Your task to perform on an android device: Go to Wikipedia Image 0: 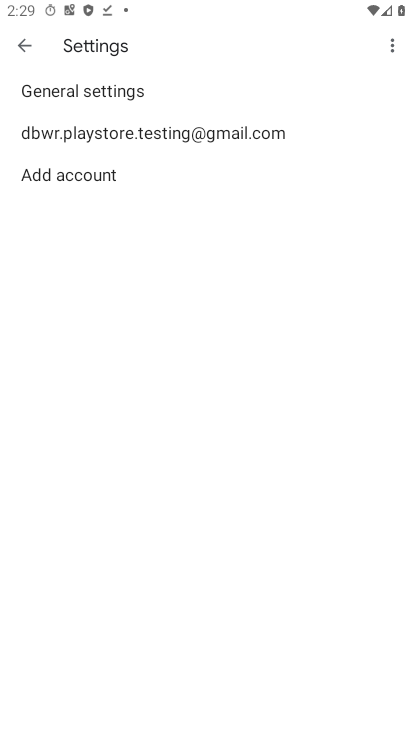
Step 0: press home button
Your task to perform on an android device: Go to Wikipedia Image 1: 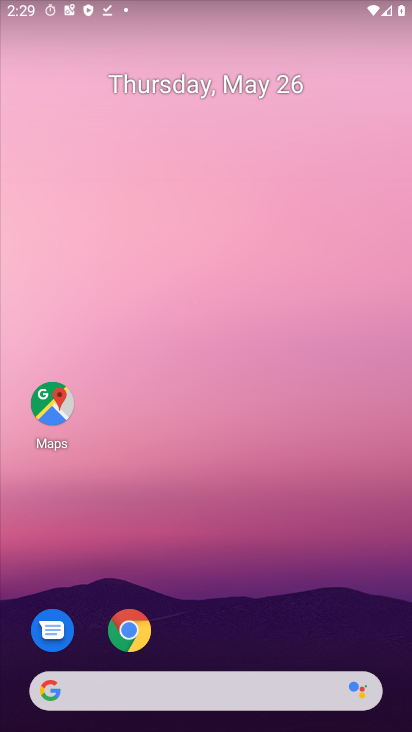
Step 1: click (131, 622)
Your task to perform on an android device: Go to Wikipedia Image 2: 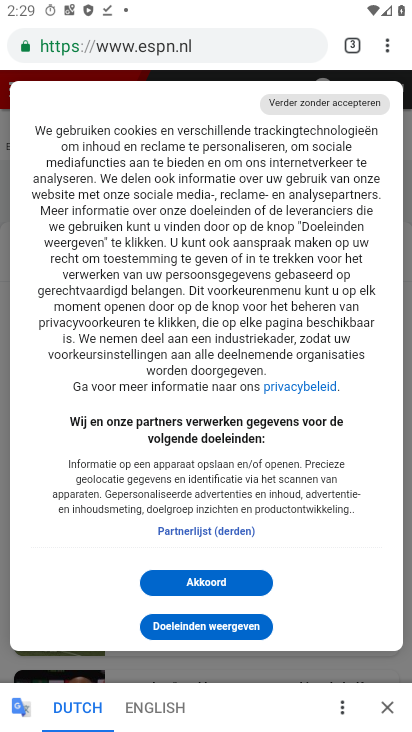
Step 2: click (343, 54)
Your task to perform on an android device: Go to Wikipedia Image 3: 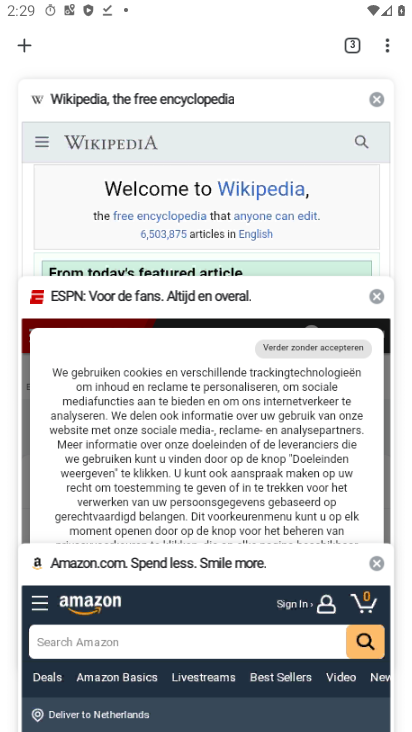
Step 3: click (205, 223)
Your task to perform on an android device: Go to Wikipedia Image 4: 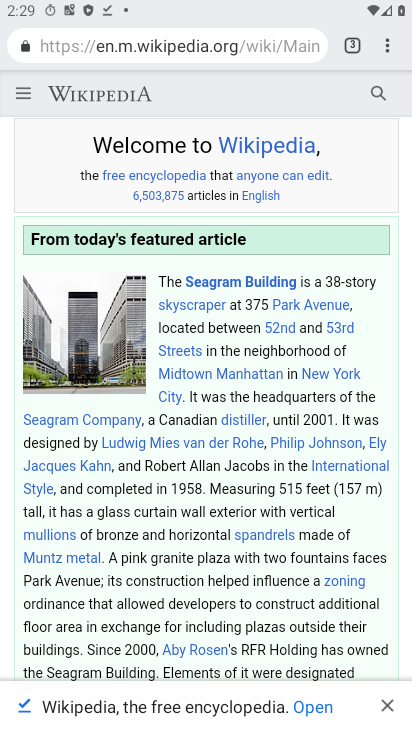
Step 4: task complete